Your task to perform on an android device: Search for sushi restaurants on Maps Image 0: 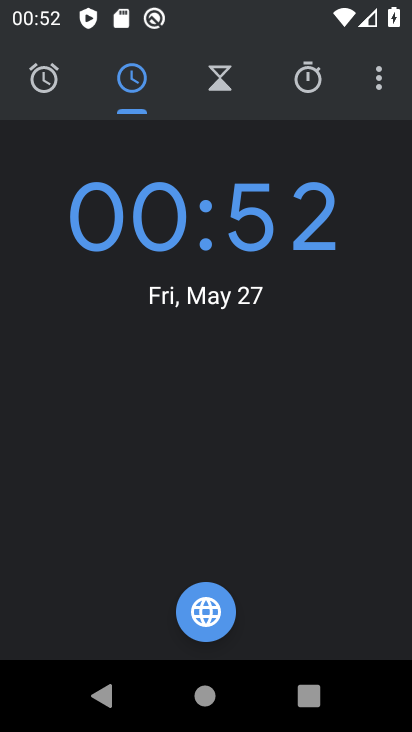
Step 0: press home button
Your task to perform on an android device: Search for sushi restaurants on Maps Image 1: 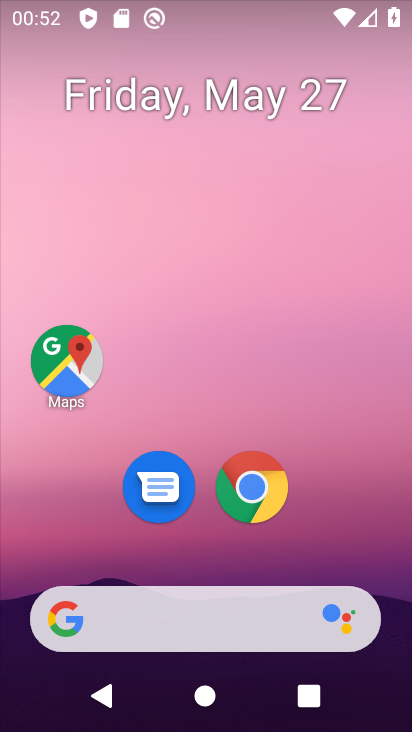
Step 1: click (71, 357)
Your task to perform on an android device: Search for sushi restaurants on Maps Image 2: 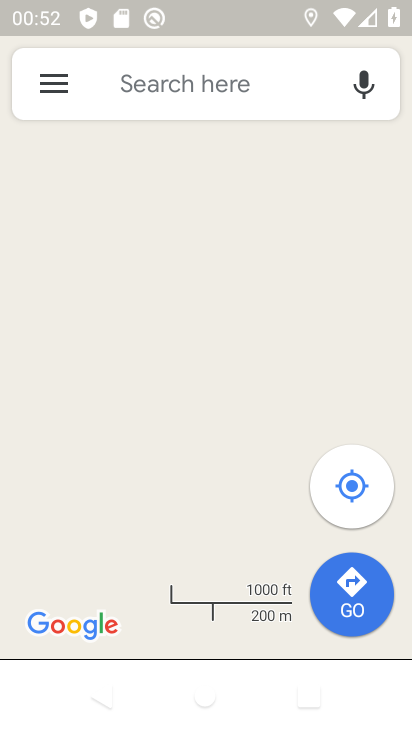
Step 2: click (175, 99)
Your task to perform on an android device: Search for sushi restaurants on Maps Image 3: 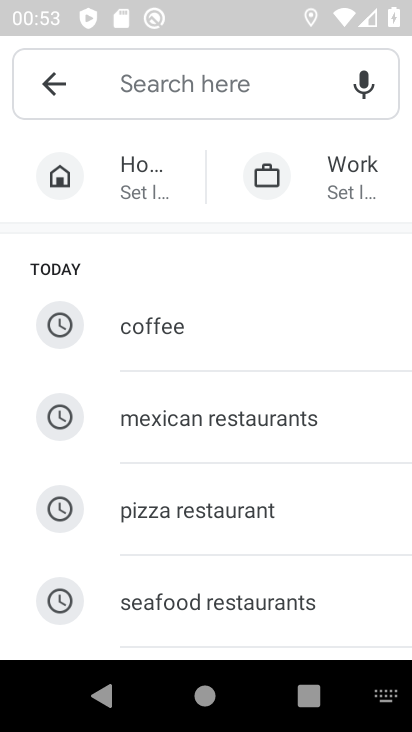
Step 3: type "sushi restaurants"
Your task to perform on an android device: Search for sushi restaurants on Maps Image 4: 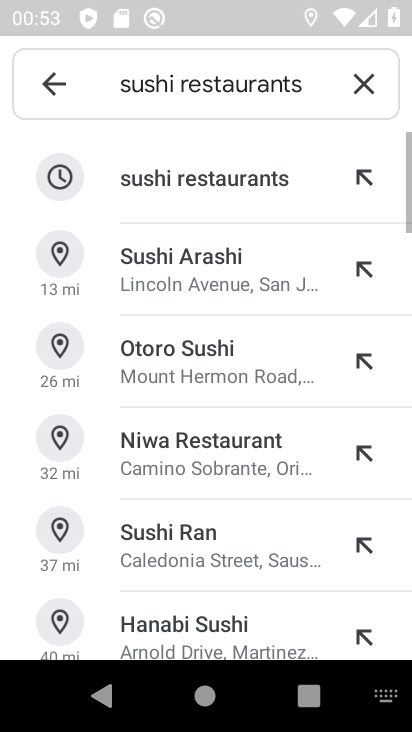
Step 4: click (266, 186)
Your task to perform on an android device: Search for sushi restaurants on Maps Image 5: 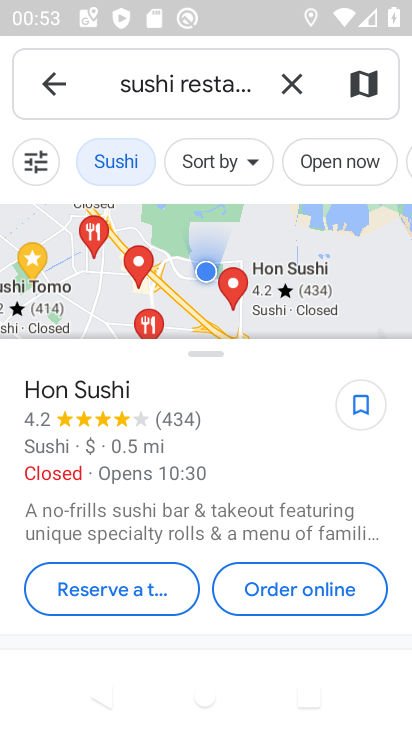
Step 5: task complete